Your task to perform on an android device: Go to CNN.com Image 0: 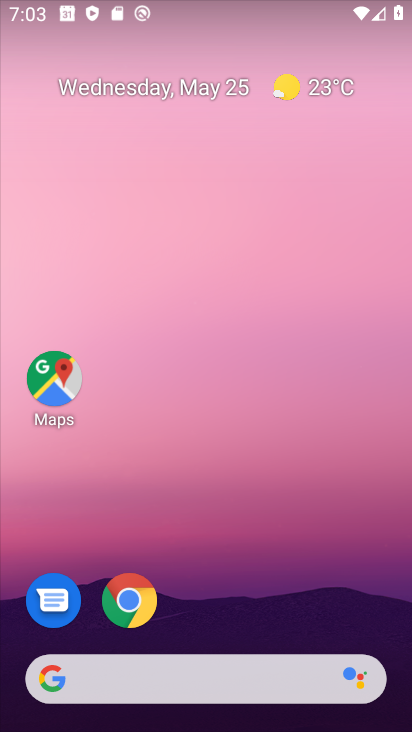
Step 0: click (130, 601)
Your task to perform on an android device: Go to CNN.com Image 1: 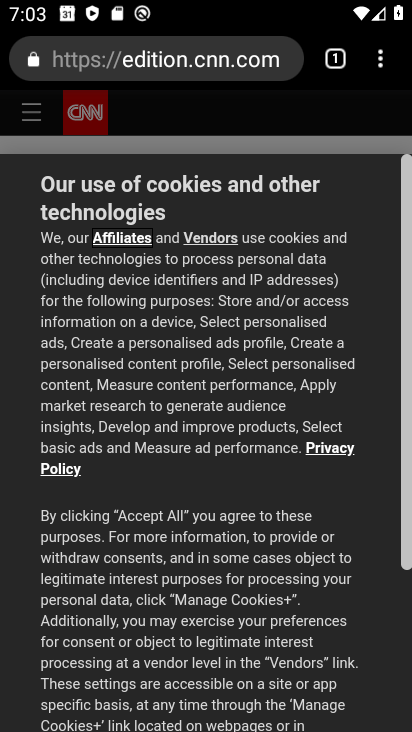
Step 1: drag from (238, 484) to (295, 300)
Your task to perform on an android device: Go to CNN.com Image 2: 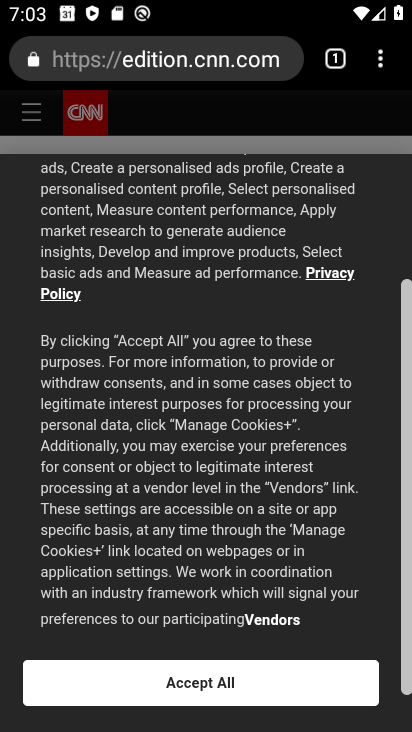
Step 2: click (230, 678)
Your task to perform on an android device: Go to CNN.com Image 3: 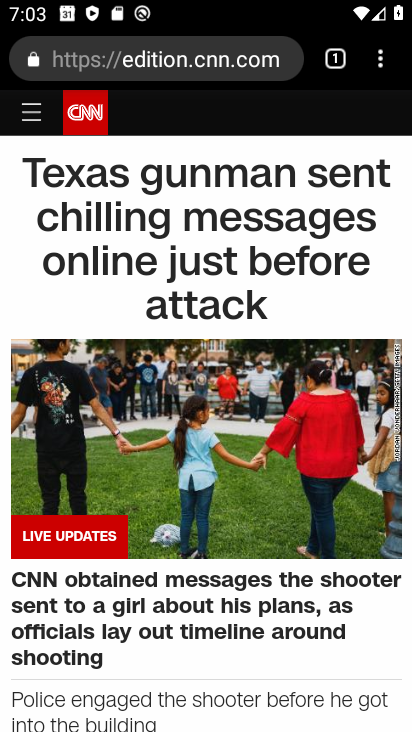
Step 3: task complete